Your task to perform on an android device: Show me the alarms in the clock app Image 0: 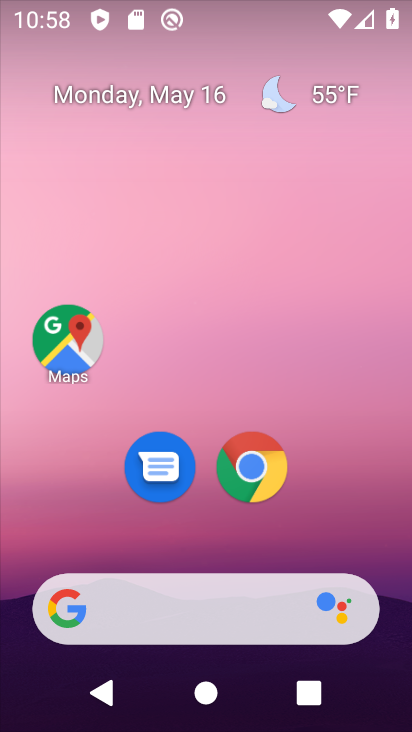
Step 0: drag from (226, 527) to (293, 44)
Your task to perform on an android device: Show me the alarms in the clock app Image 1: 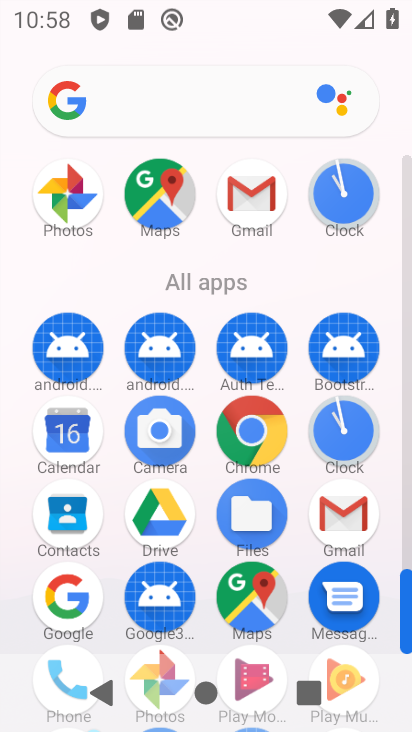
Step 1: click (326, 419)
Your task to perform on an android device: Show me the alarms in the clock app Image 2: 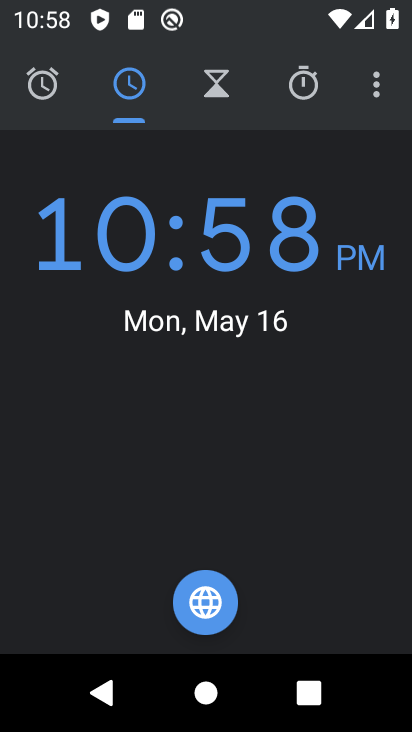
Step 2: click (59, 98)
Your task to perform on an android device: Show me the alarms in the clock app Image 3: 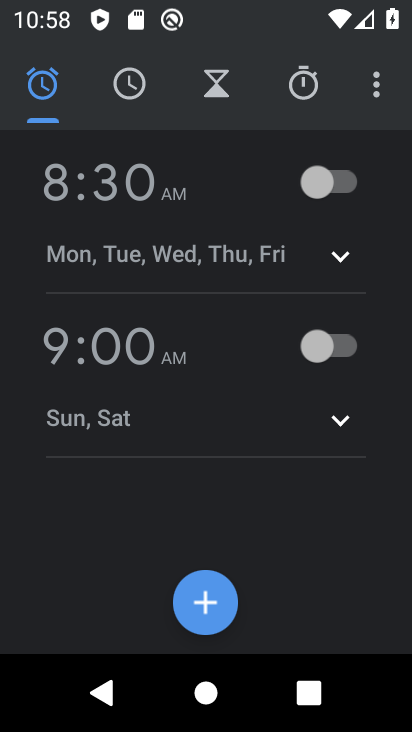
Step 3: task complete